Your task to perform on an android device: Is it going to rain this weekend? Image 0: 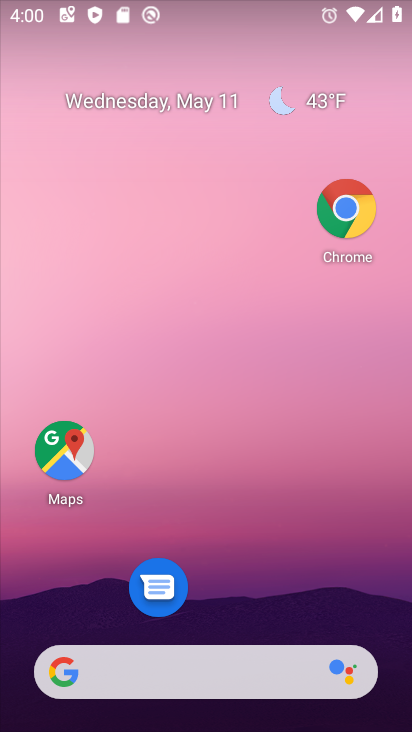
Step 0: click (309, 88)
Your task to perform on an android device: Is it going to rain this weekend? Image 1: 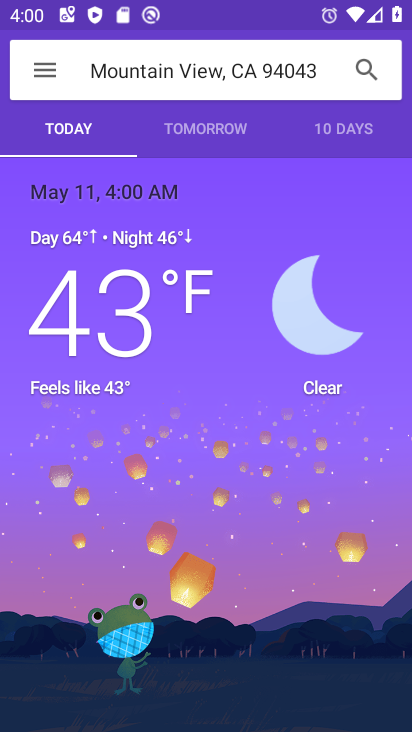
Step 1: click (326, 127)
Your task to perform on an android device: Is it going to rain this weekend? Image 2: 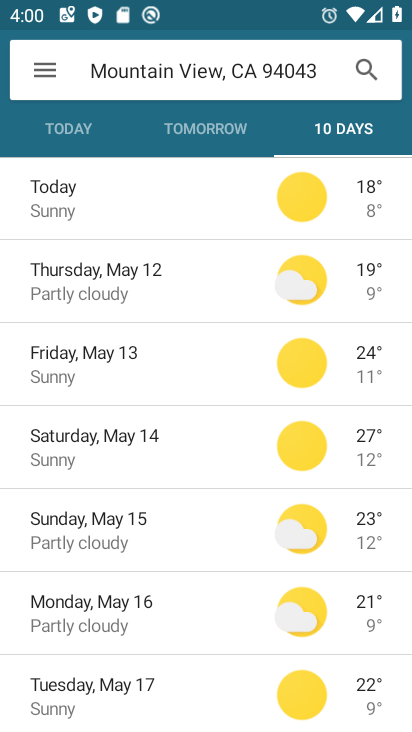
Step 2: task complete